Your task to perform on an android device: open sync settings in chrome Image 0: 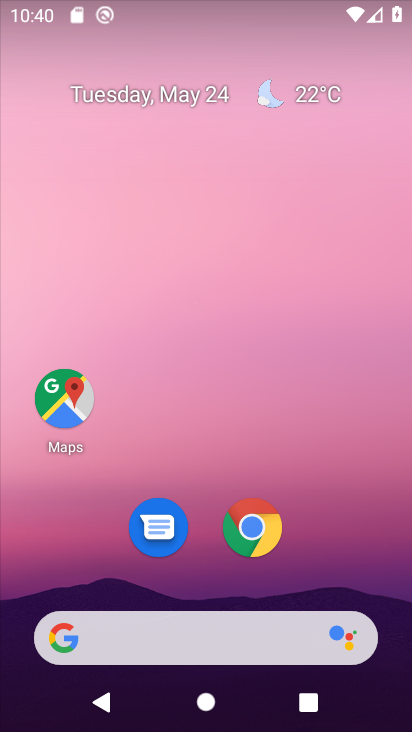
Step 0: press home button
Your task to perform on an android device: open sync settings in chrome Image 1: 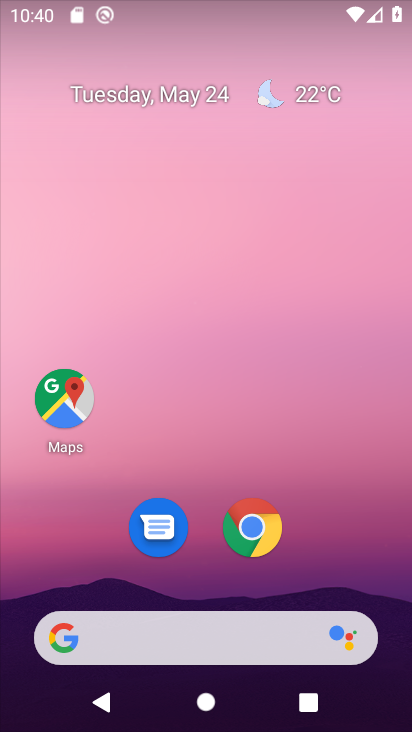
Step 1: click (258, 531)
Your task to perform on an android device: open sync settings in chrome Image 2: 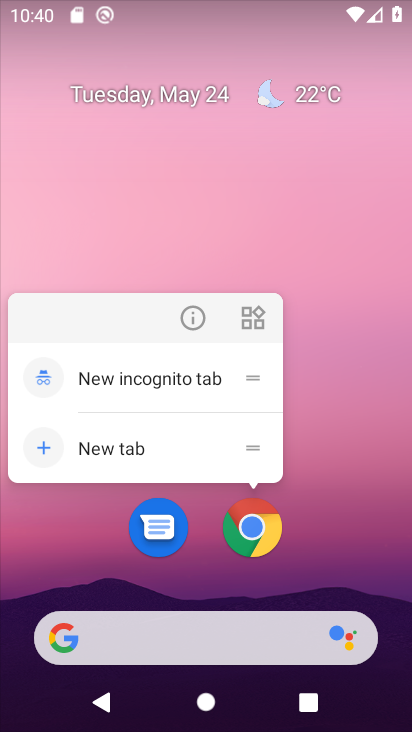
Step 2: click (254, 538)
Your task to perform on an android device: open sync settings in chrome Image 3: 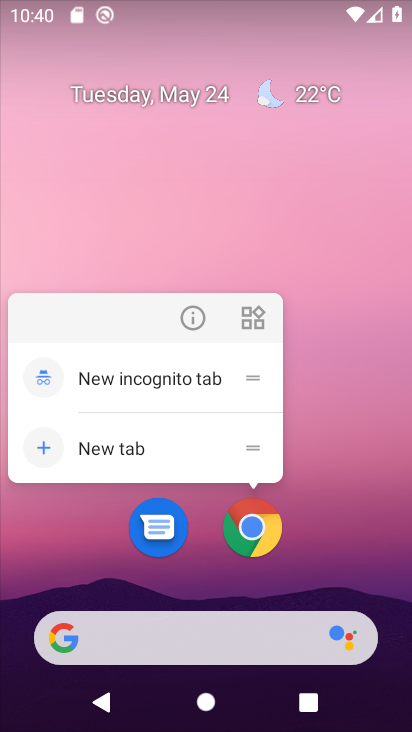
Step 3: click (251, 533)
Your task to perform on an android device: open sync settings in chrome Image 4: 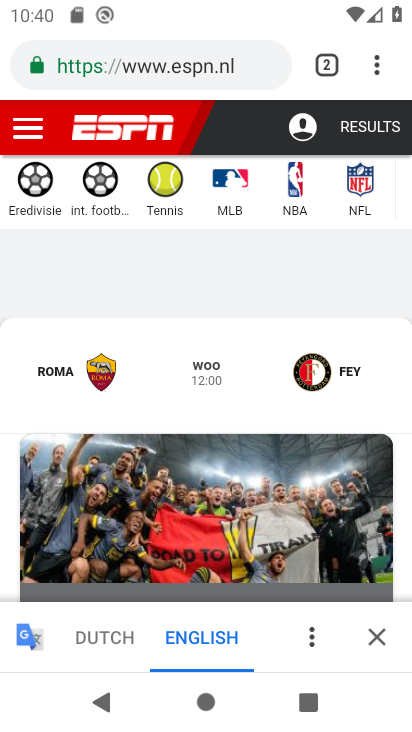
Step 4: drag from (375, 66) to (231, 583)
Your task to perform on an android device: open sync settings in chrome Image 5: 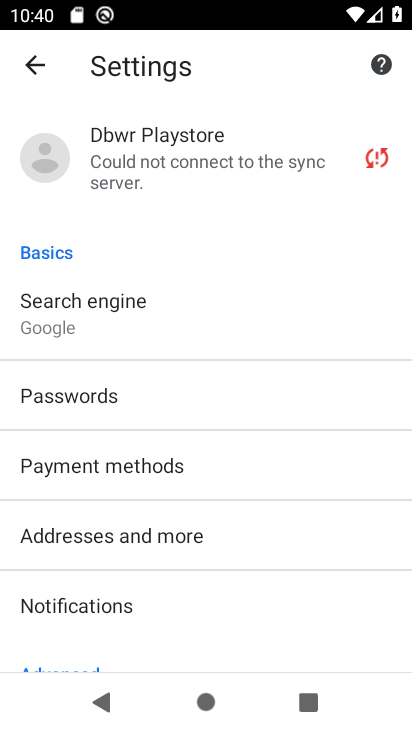
Step 5: click (159, 161)
Your task to perform on an android device: open sync settings in chrome Image 6: 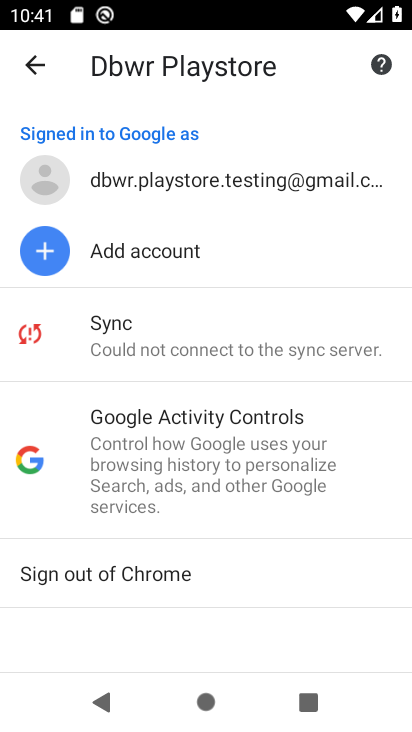
Step 6: click (138, 333)
Your task to perform on an android device: open sync settings in chrome Image 7: 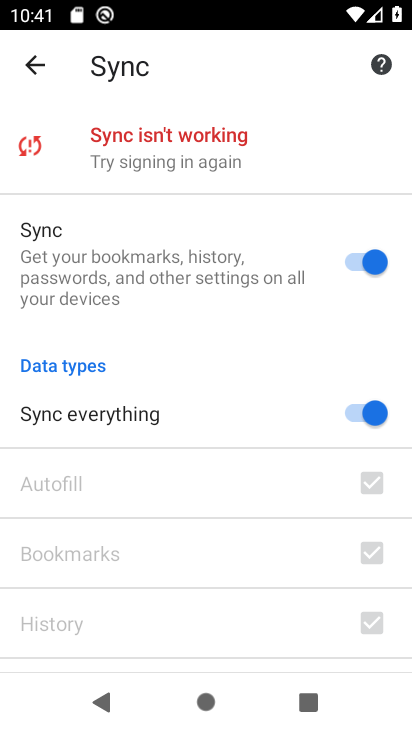
Step 7: task complete